Your task to perform on an android device: turn off location Image 0: 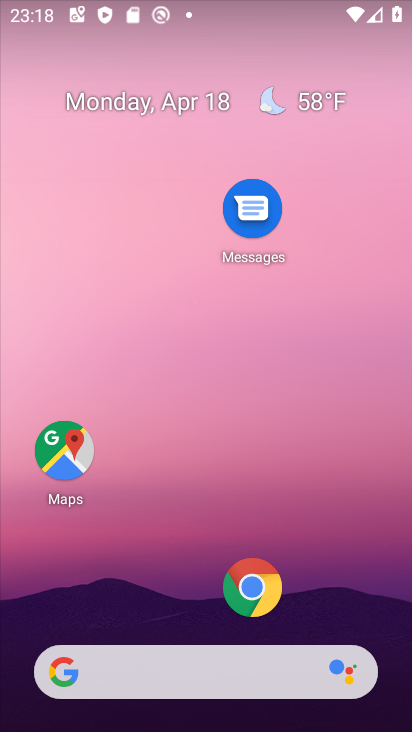
Step 0: drag from (161, 618) to (300, 165)
Your task to perform on an android device: turn off location Image 1: 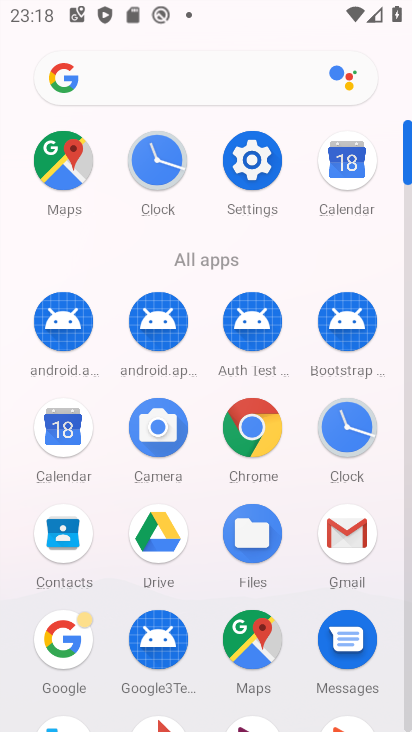
Step 1: click (258, 163)
Your task to perform on an android device: turn off location Image 2: 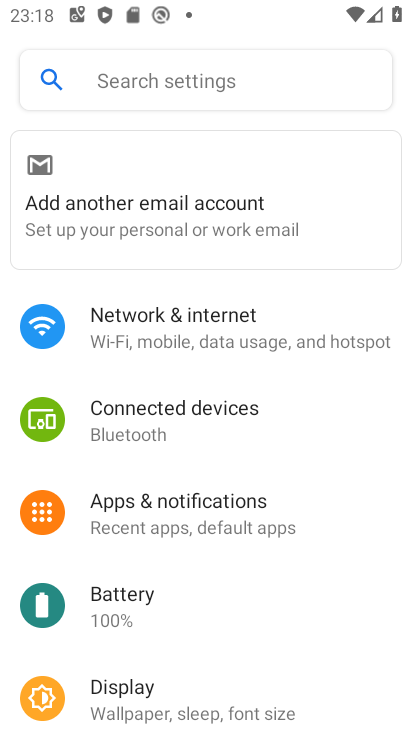
Step 2: drag from (214, 599) to (319, 217)
Your task to perform on an android device: turn off location Image 3: 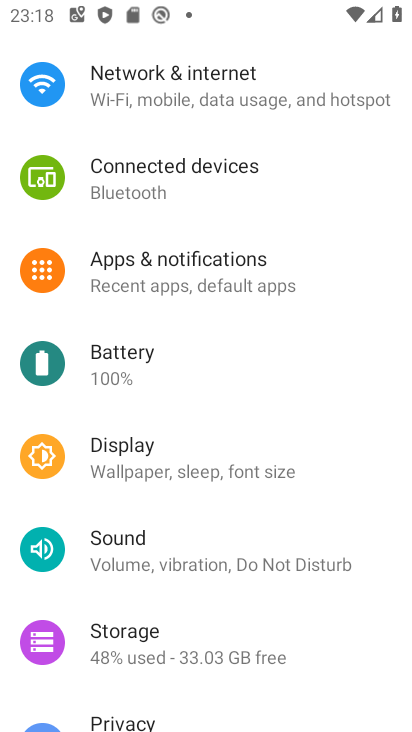
Step 3: drag from (220, 575) to (310, 281)
Your task to perform on an android device: turn off location Image 4: 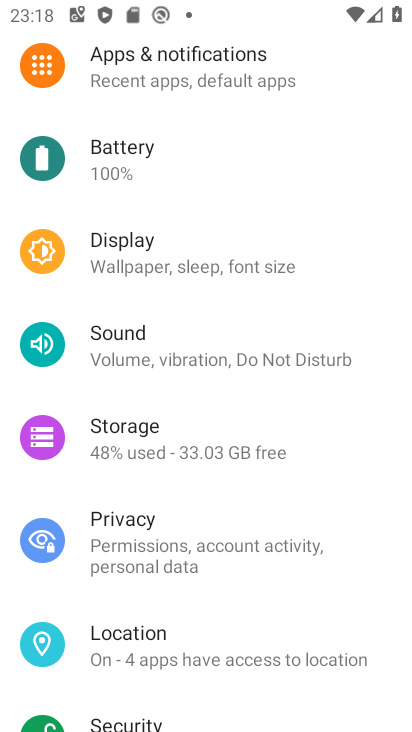
Step 4: drag from (206, 609) to (282, 302)
Your task to perform on an android device: turn off location Image 5: 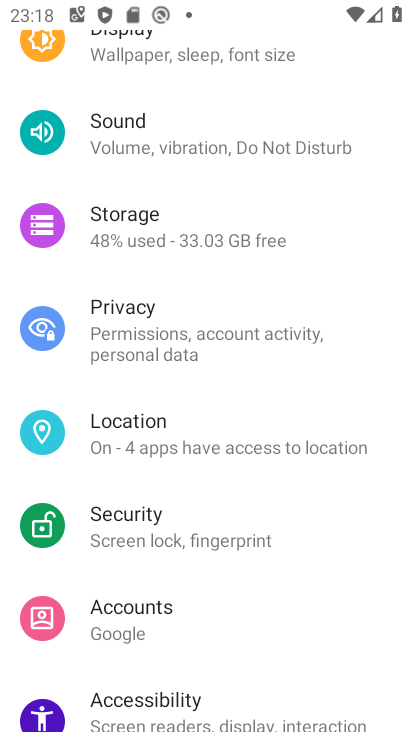
Step 5: click (235, 434)
Your task to perform on an android device: turn off location Image 6: 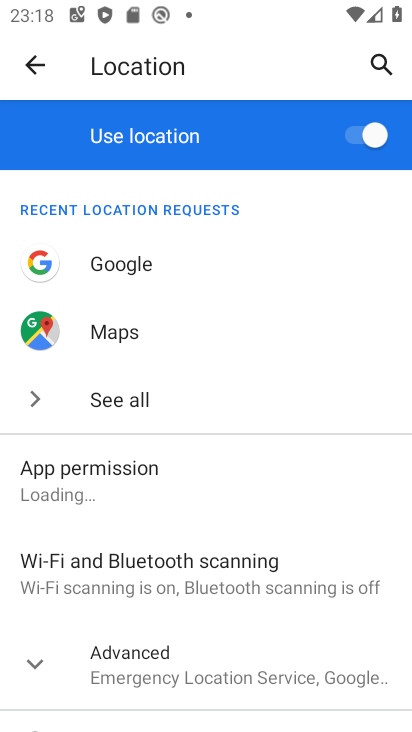
Step 6: click (348, 130)
Your task to perform on an android device: turn off location Image 7: 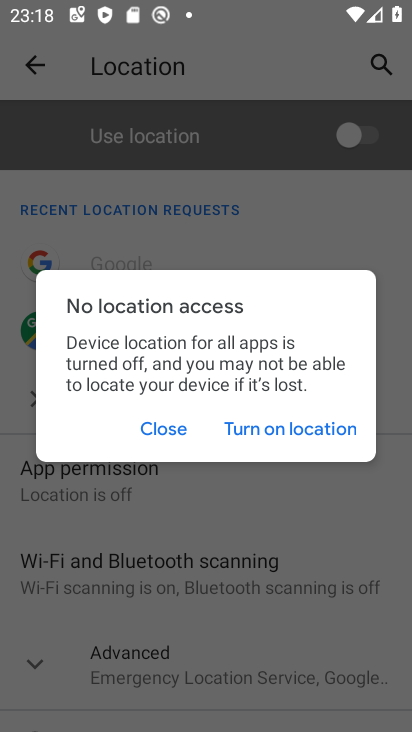
Step 7: click (170, 428)
Your task to perform on an android device: turn off location Image 8: 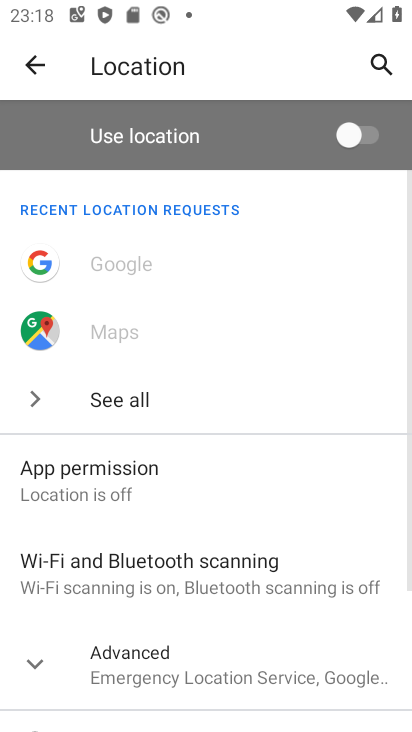
Step 8: task complete